Your task to perform on an android device: Open privacy settings Image 0: 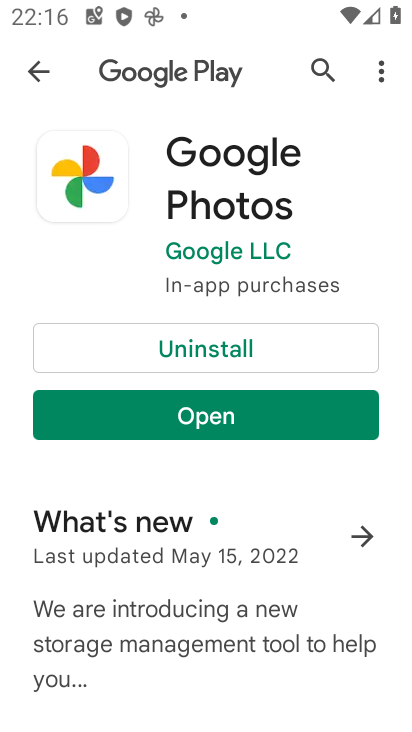
Step 0: press home button
Your task to perform on an android device: Open privacy settings Image 1: 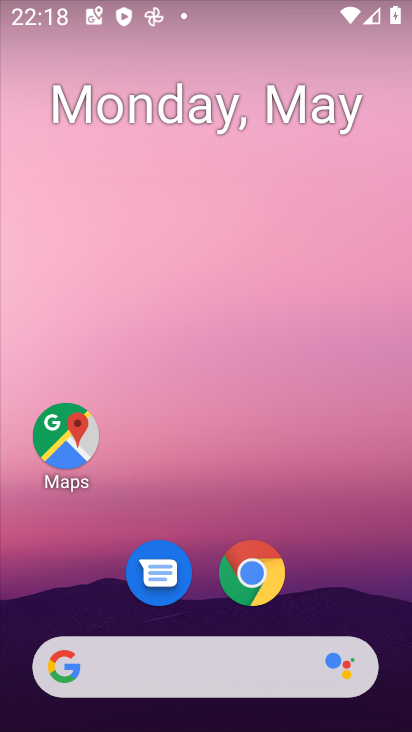
Step 1: drag from (356, 585) to (237, 36)
Your task to perform on an android device: Open privacy settings Image 2: 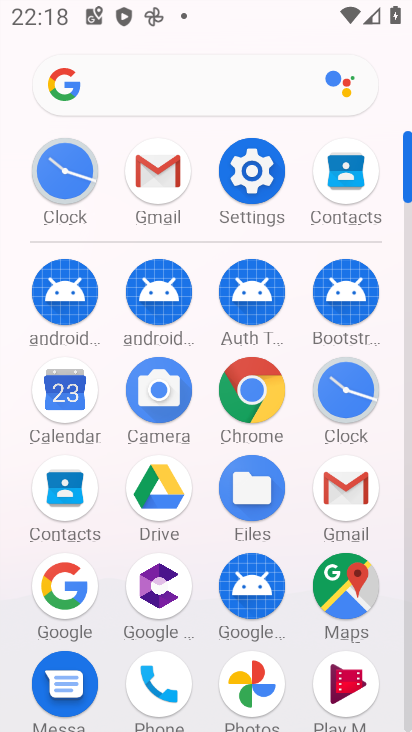
Step 2: click (266, 205)
Your task to perform on an android device: Open privacy settings Image 3: 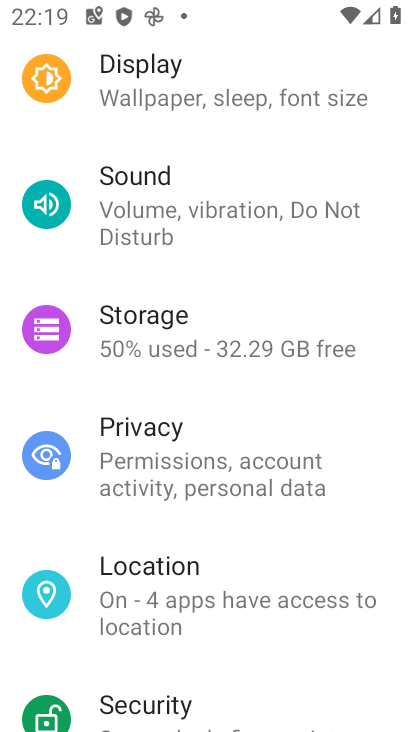
Step 3: click (226, 504)
Your task to perform on an android device: Open privacy settings Image 4: 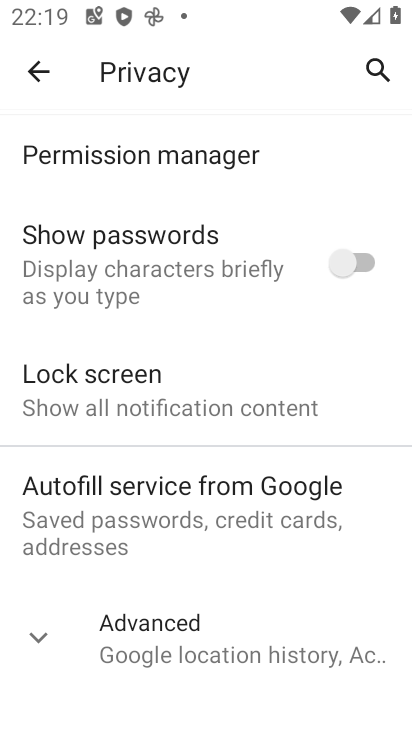
Step 4: task complete